Your task to perform on an android device: turn on showing notifications on the lock screen Image 0: 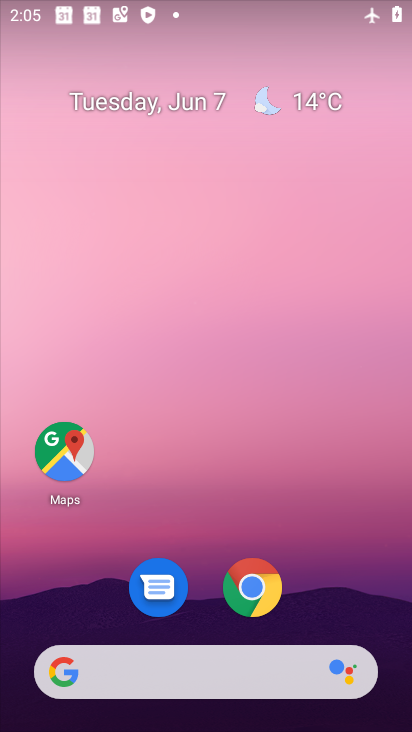
Step 0: drag from (228, 656) to (294, 286)
Your task to perform on an android device: turn on showing notifications on the lock screen Image 1: 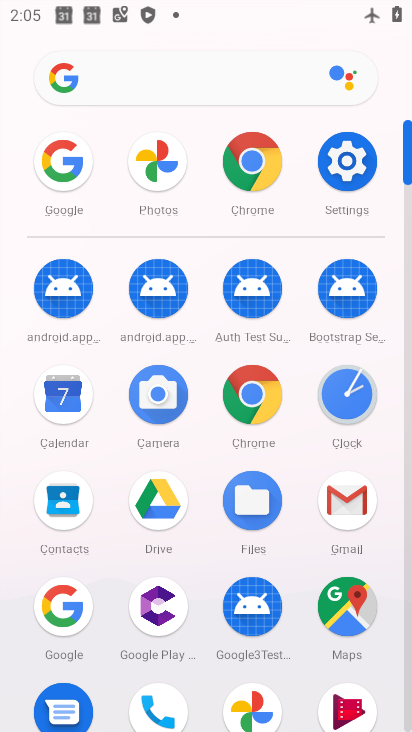
Step 1: click (337, 126)
Your task to perform on an android device: turn on showing notifications on the lock screen Image 2: 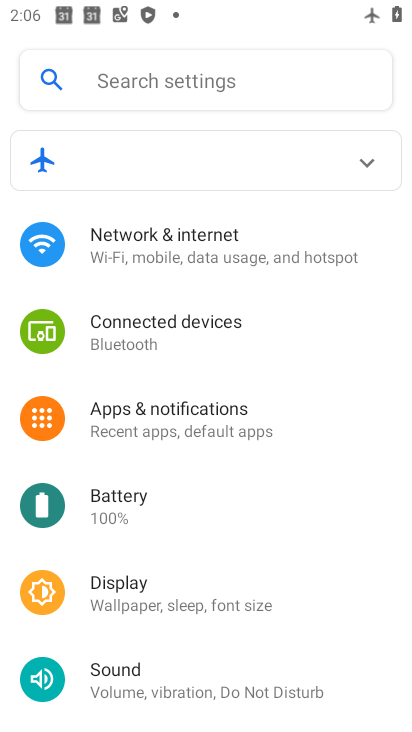
Step 2: click (186, 418)
Your task to perform on an android device: turn on showing notifications on the lock screen Image 3: 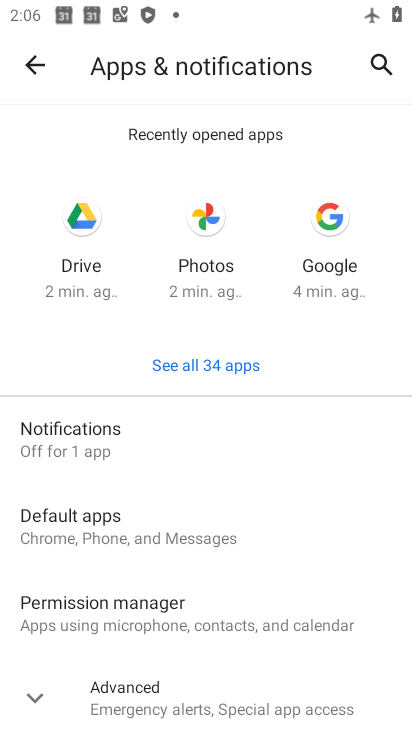
Step 3: click (164, 444)
Your task to perform on an android device: turn on showing notifications on the lock screen Image 4: 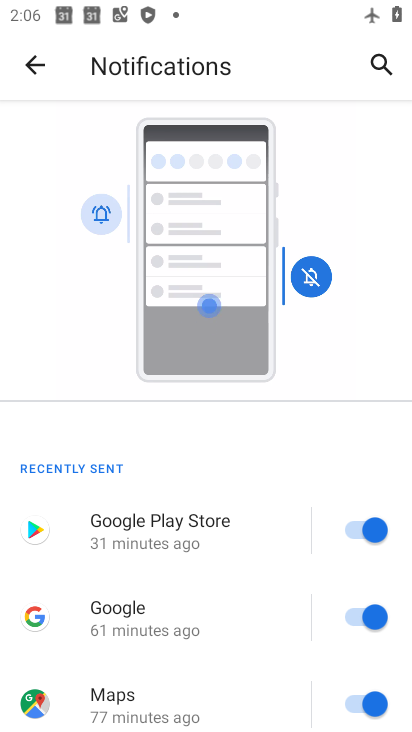
Step 4: drag from (213, 702) to (243, 244)
Your task to perform on an android device: turn on showing notifications on the lock screen Image 5: 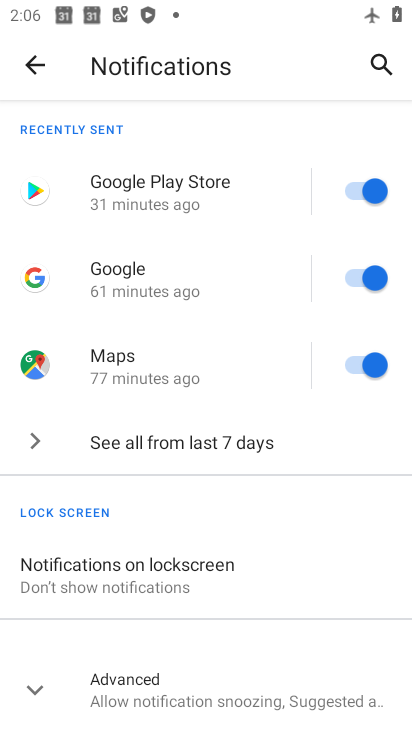
Step 5: click (167, 570)
Your task to perform on an android device: turn on showing notifications on the lock screen Image 6: 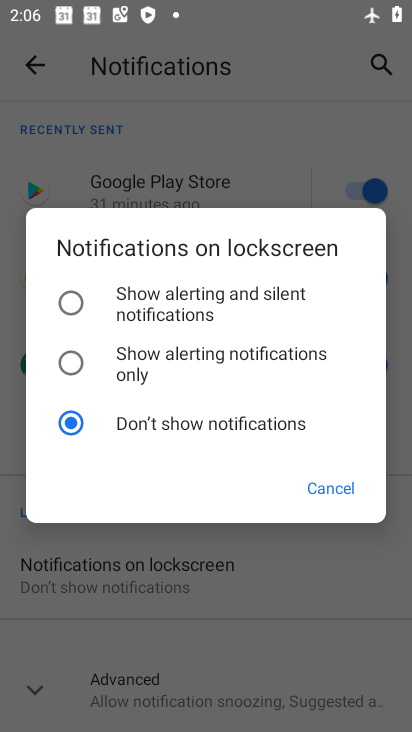
Step 6: click (229, 285)
Your task to perform on an android device: turn on showing notifications on the lock screen Image 7: 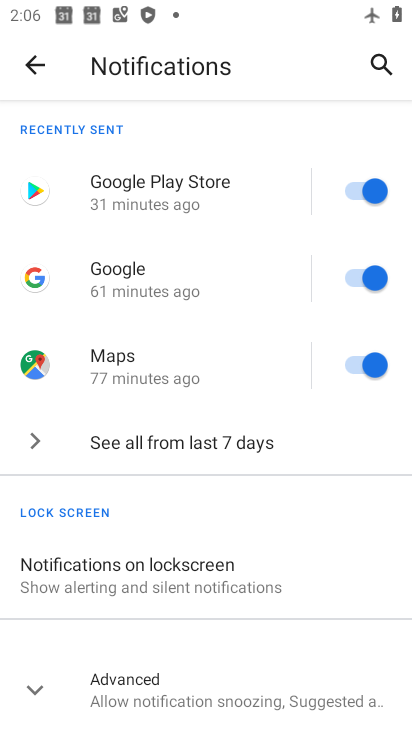
Step 7: task complete